Your task to perform on an android device: open app "Grab" Image 0: 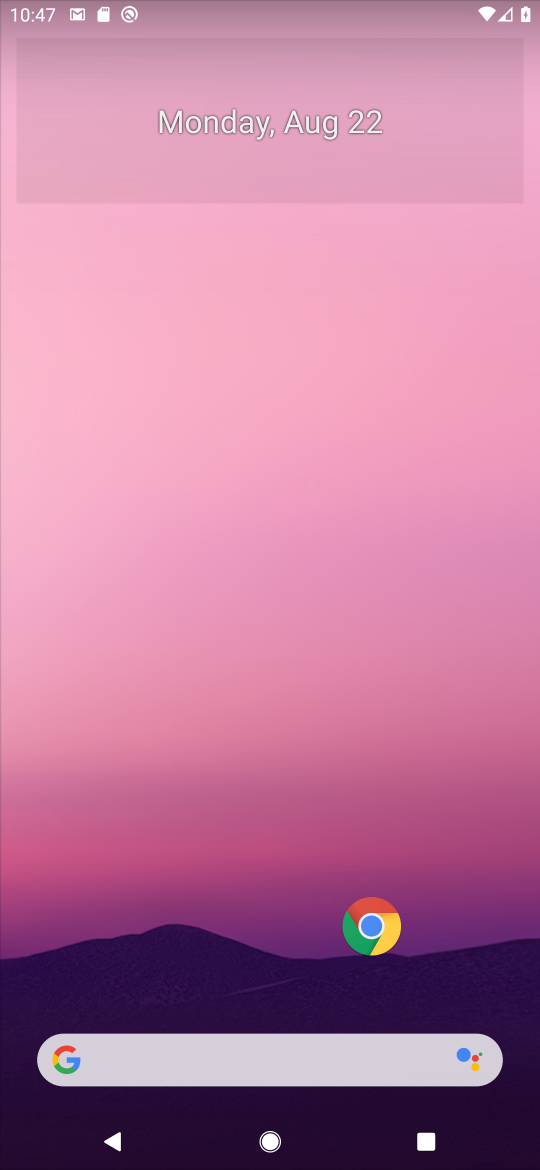
Step 0: drag from (271, 546) to (385, 225)
Your task to perform on an android device: open app "Grab" Image 1: 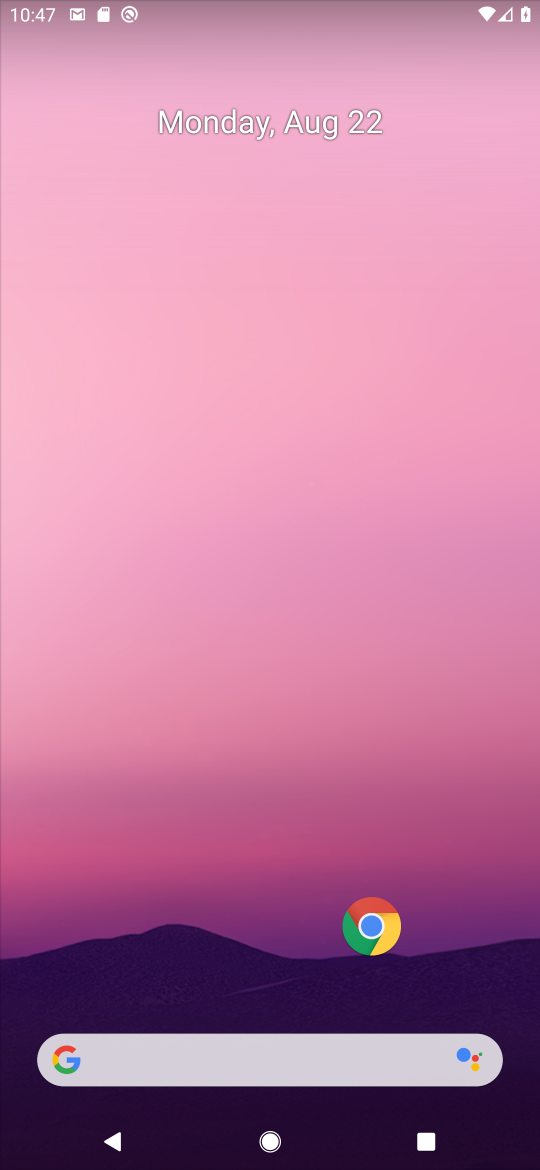
Step 1: drag from (316, 953) to (313, 0)
Your task to perform on an android device: open app "Grab" Image 2: 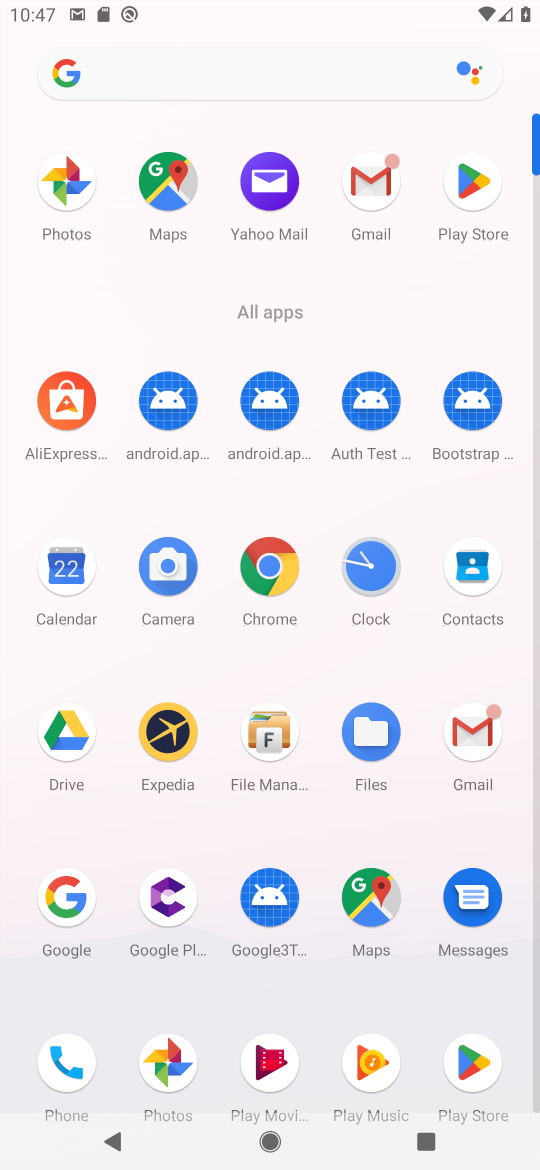
Step 2: click (464, 188)
Your task to perform on an android device: open app "Grab" Image 3: 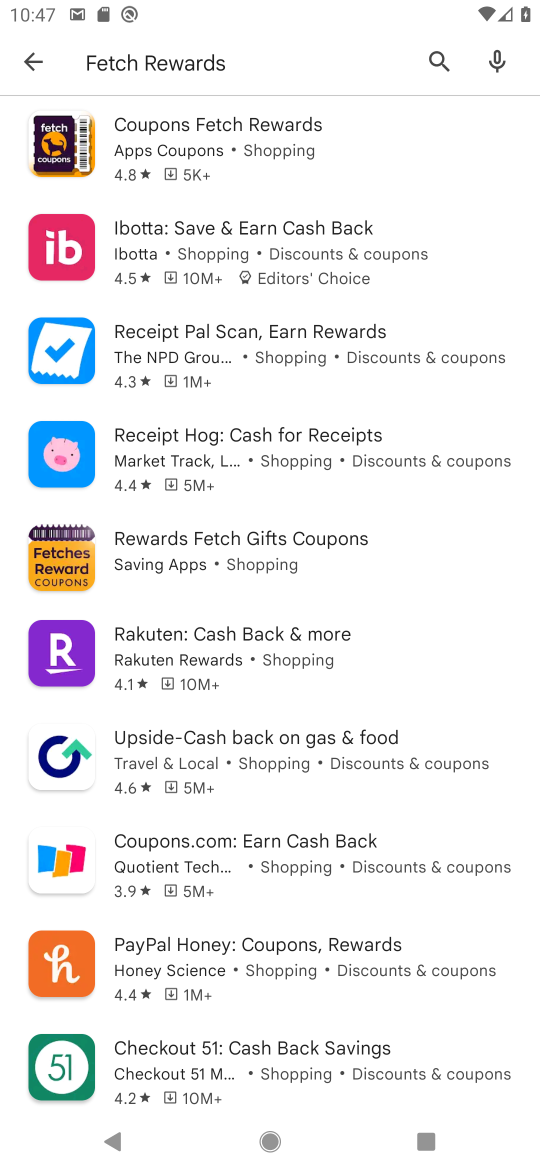
Step 3: press back button
Your task to perform on an android device: open app "Grab" Image 4: 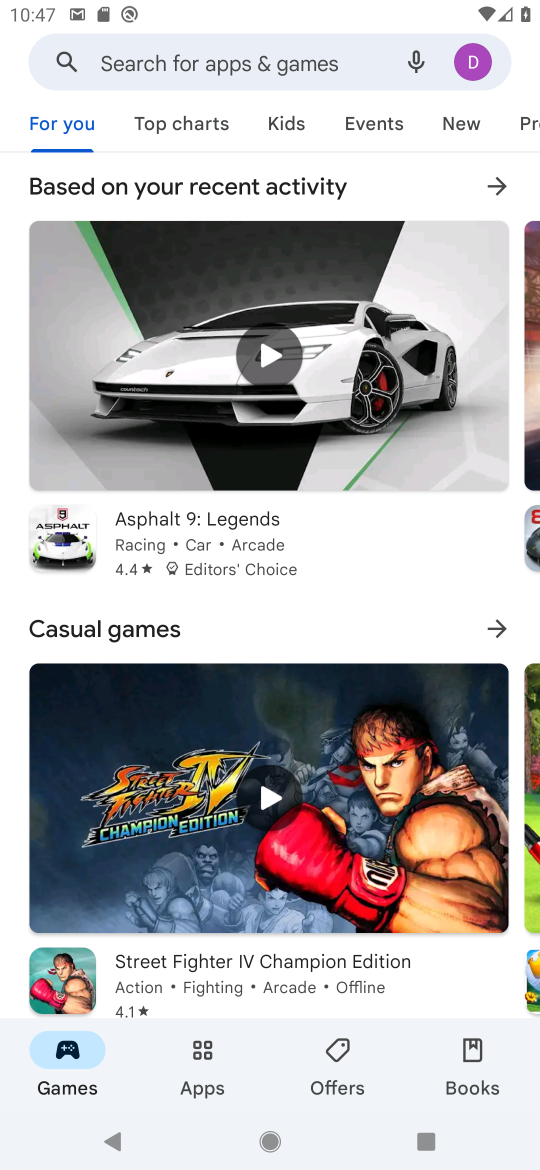
Step 4: click (129, 56)
Your task to perform on an android device: open app "Grab" Image 5: 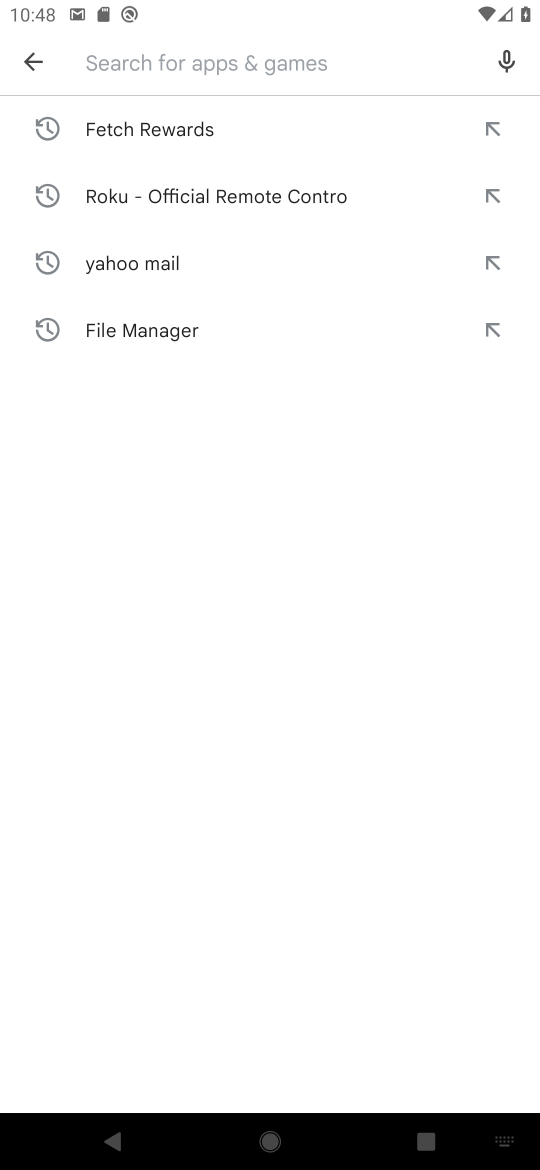
Step 5: type "Grab"
Your task to perform on an android device: open app "Grab" Image 6: 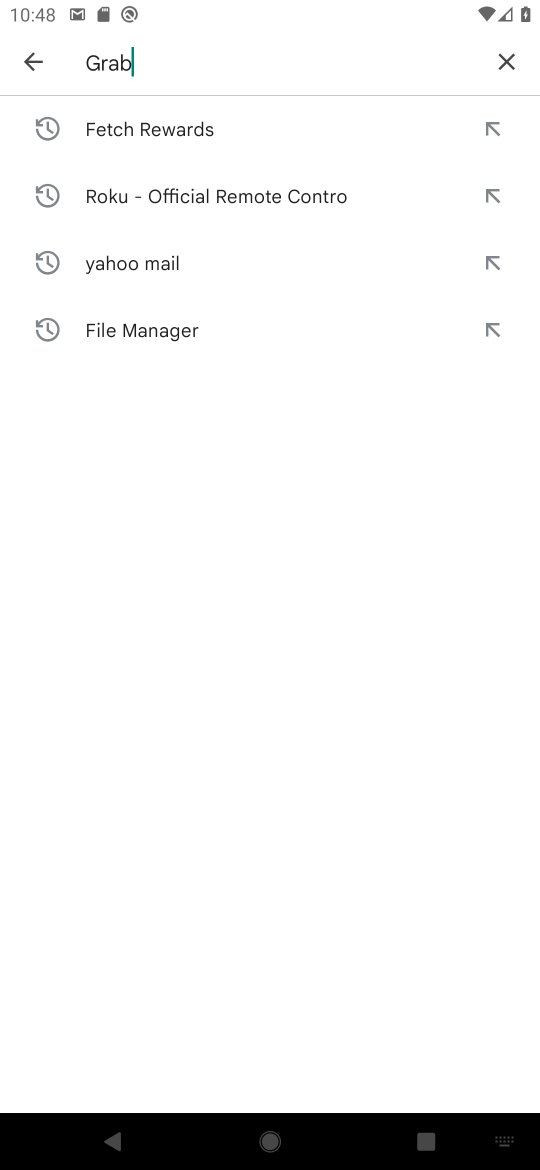
Step 6: press enter
Your task to perform on an android device: open app "Grab" Image 7: 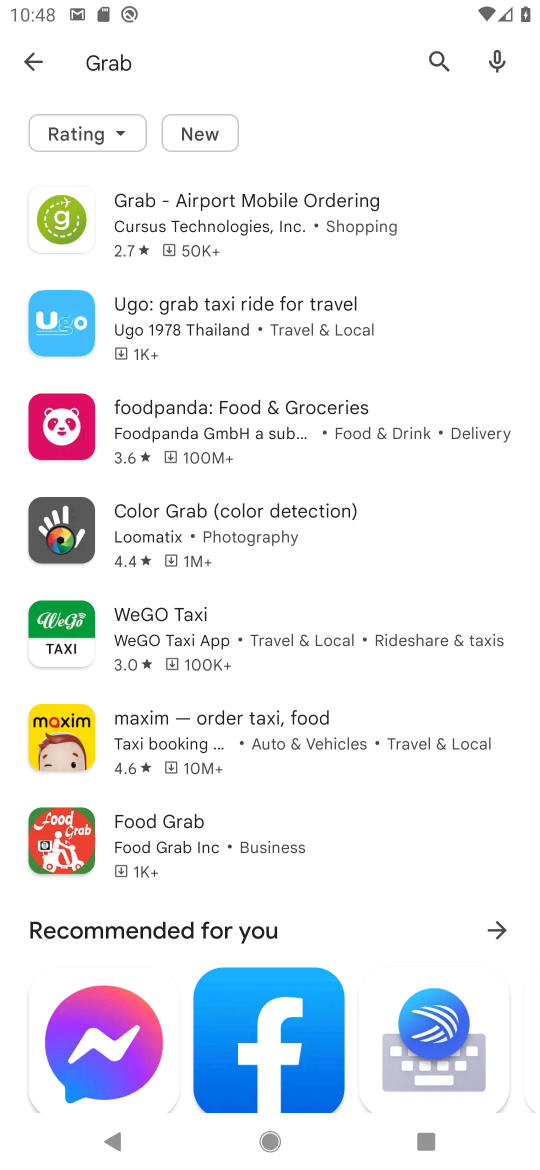
Step 7: click (343, 239)
Your task to perform on an android device: open app "Grab" Image 8: 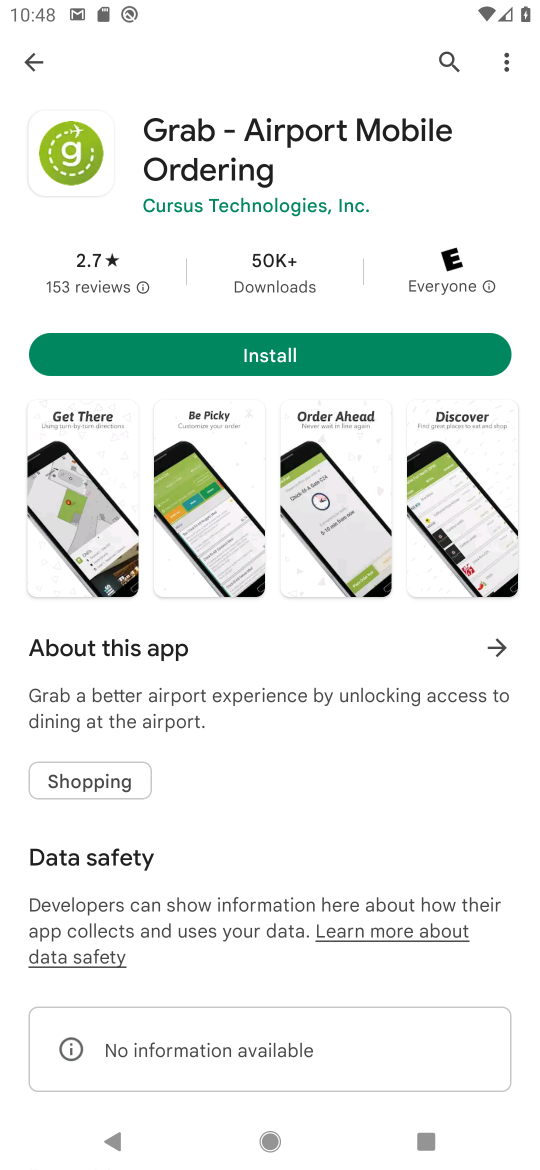
Step 8: task complete